Your task to perform on an android device: toggle location history Image 0: 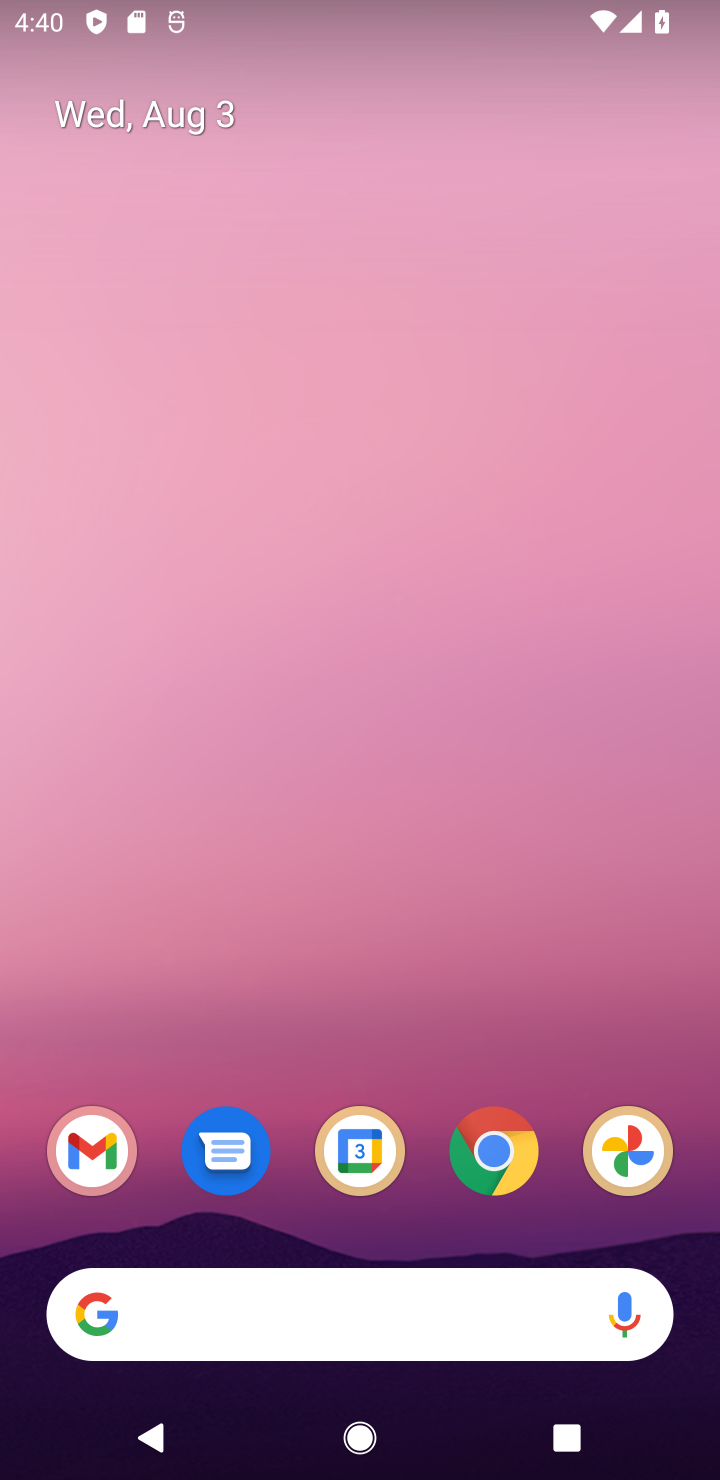
Step 0: drag from (440, 1078) to (444, 607)
Your task to perform on an android device: toggle location history Image 1: 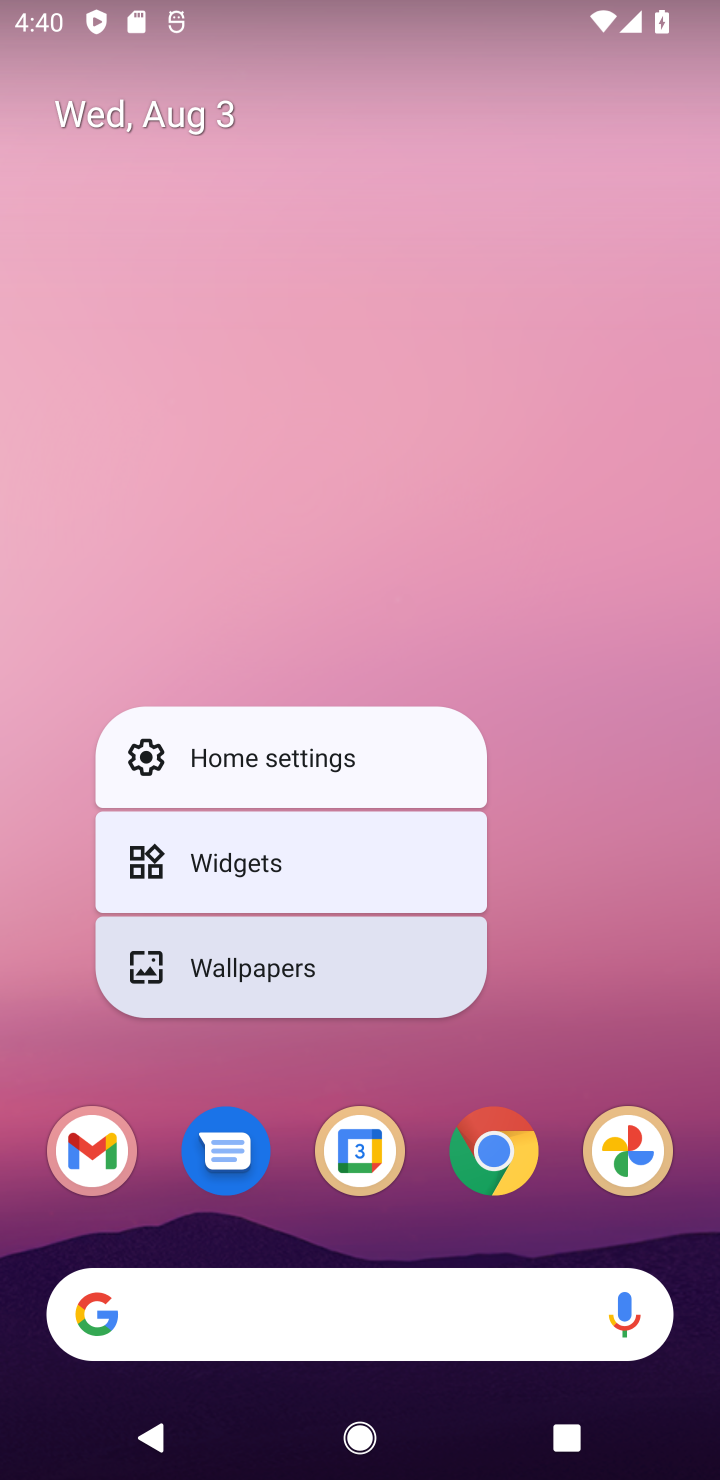
Step 1: click (444, 607)
Your task to perform on an android device: toggle location history Image 2: 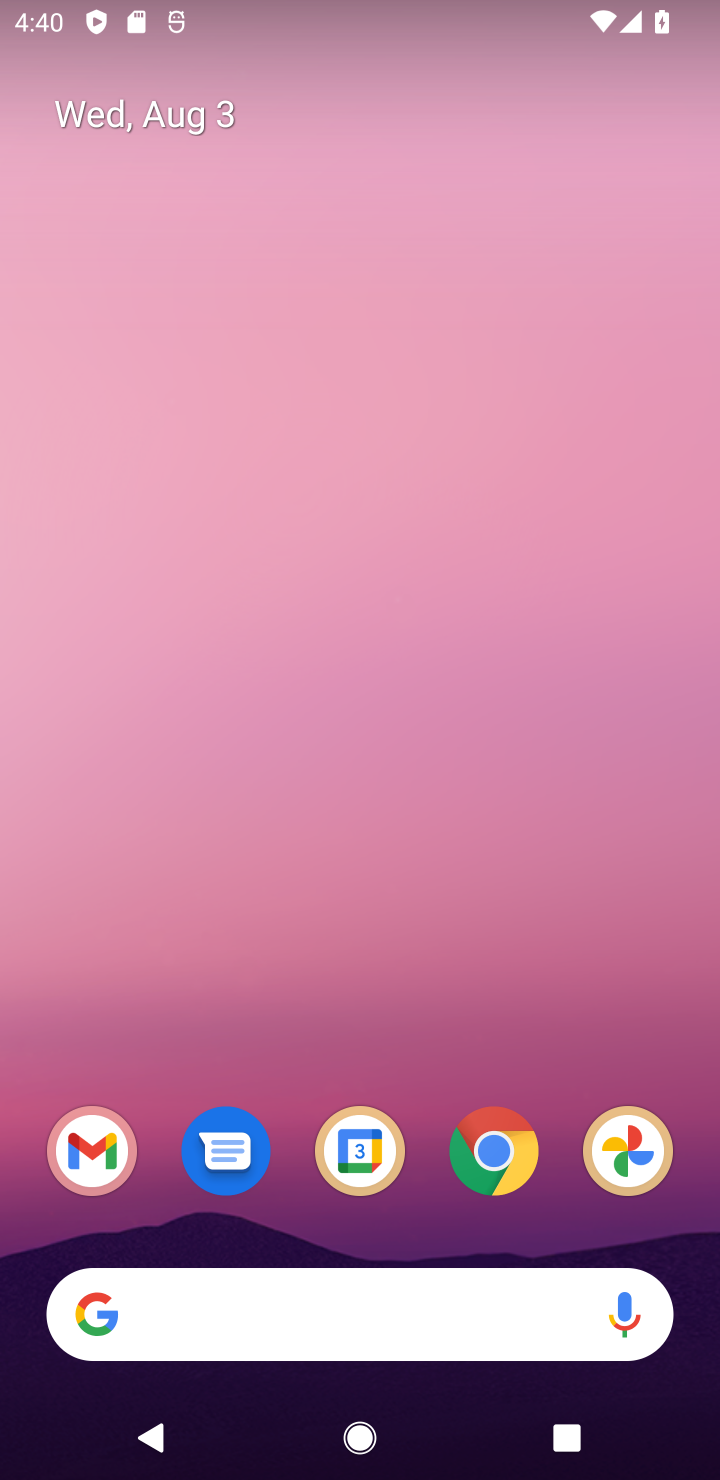
Step 2: drag from (434, 1105) to (380, 365)
Your task to perform on an android device: toggle location history Image 3: 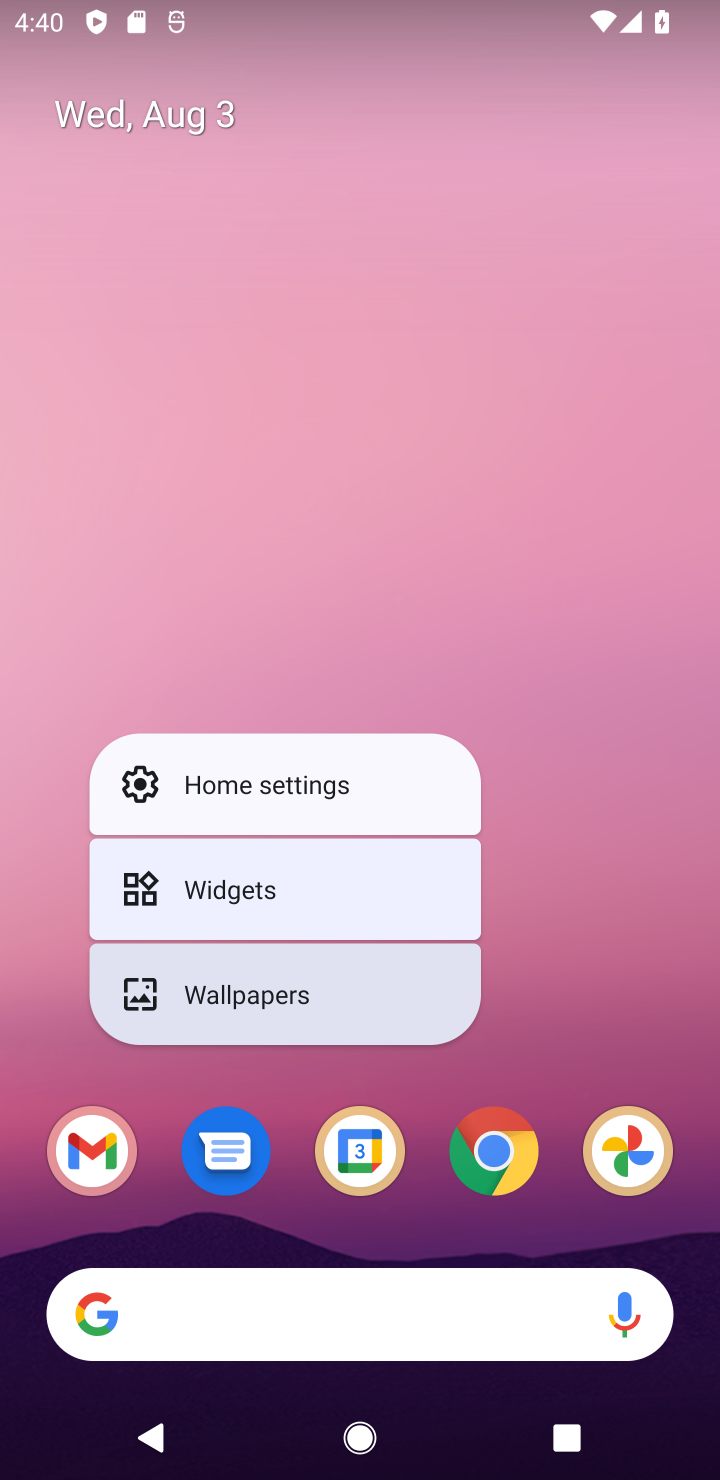
Step 3: click (520, 592)
Your task to perform on an android device: toggle location history Image 4: 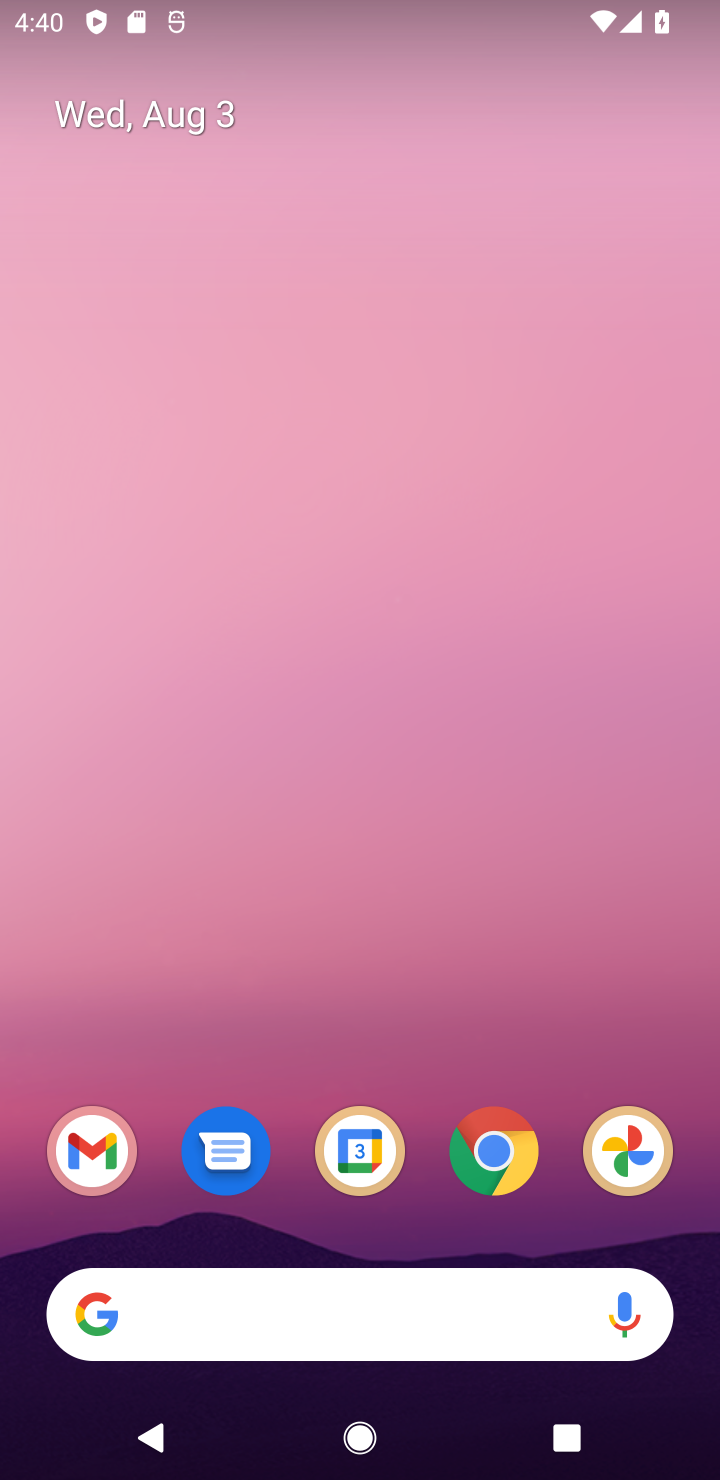
Step 4: drag from (429, 1052) to (349, 402)
Your task to perform on an android device: toggle location history Image 5: 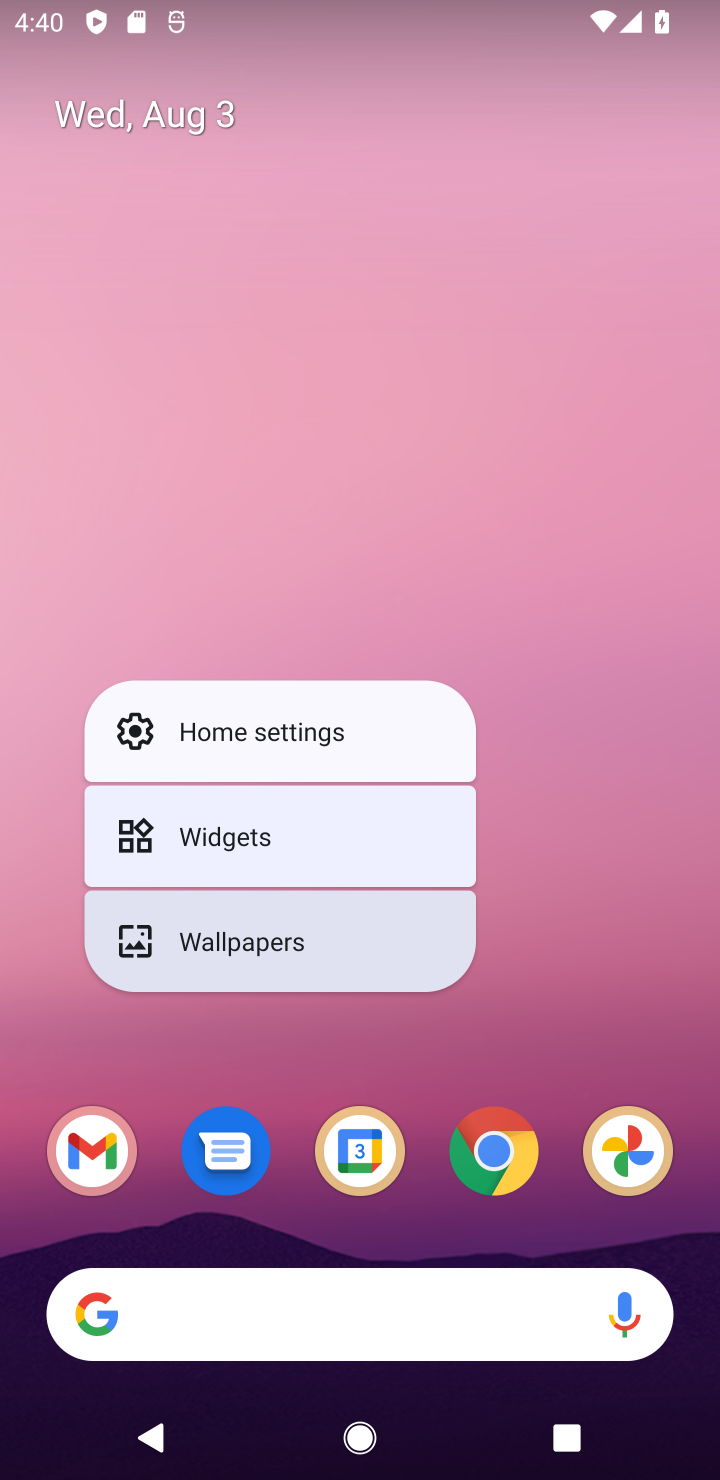
Step 5: click (694, 999)
Your task to perform on an android device: toggle location history Image 6: 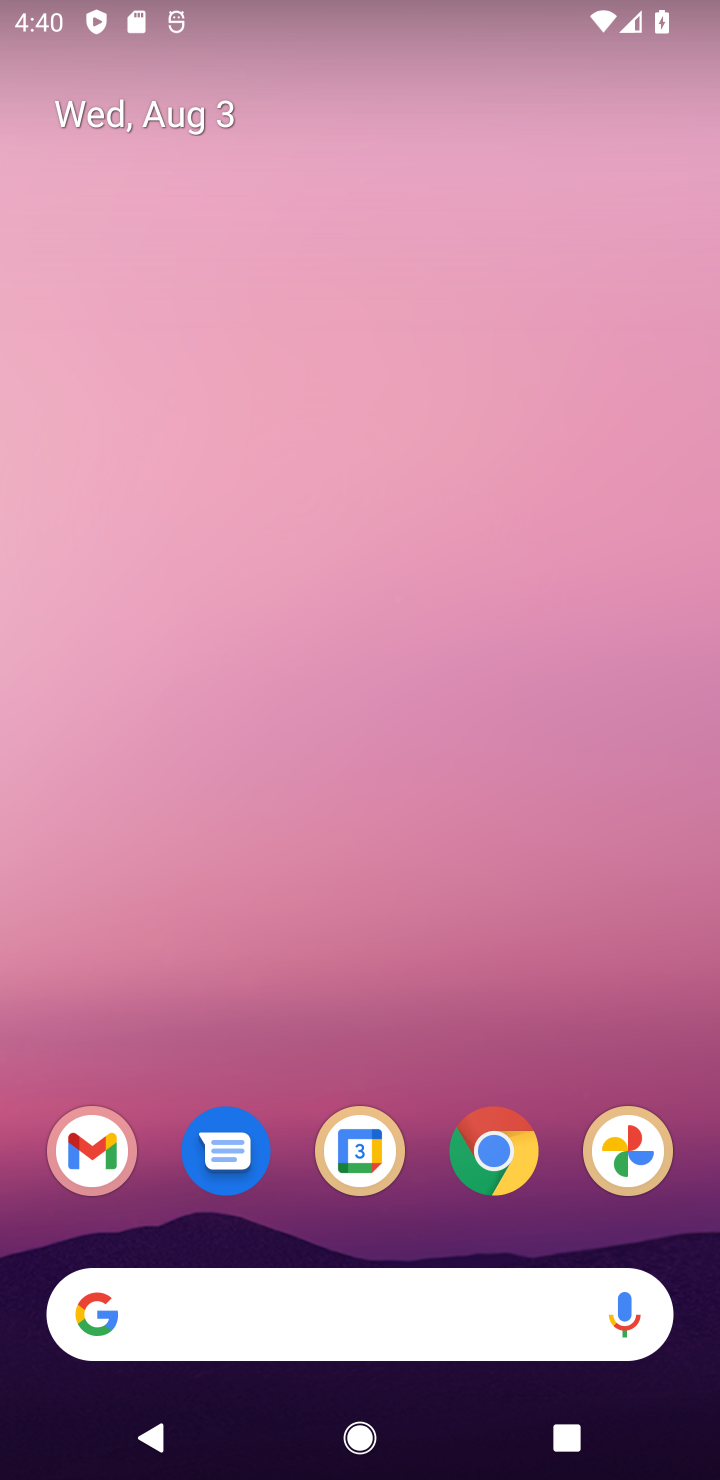
Step 6: drag from (368, 1050) to (307, 132)
Your task to perform on an android device: toggle location history Image 7: 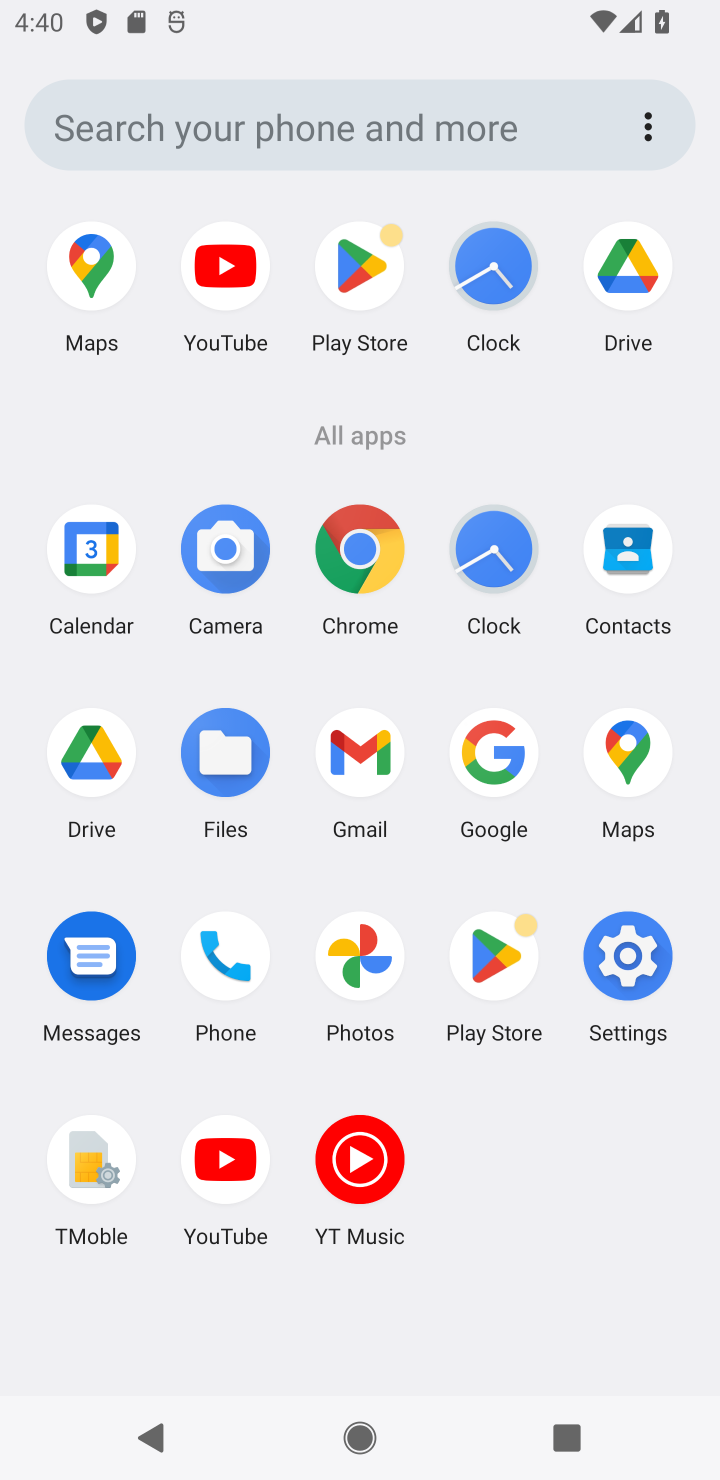
Step 7: click (634, 965)
Your task to perform on an android device: toggle location history Image 8: 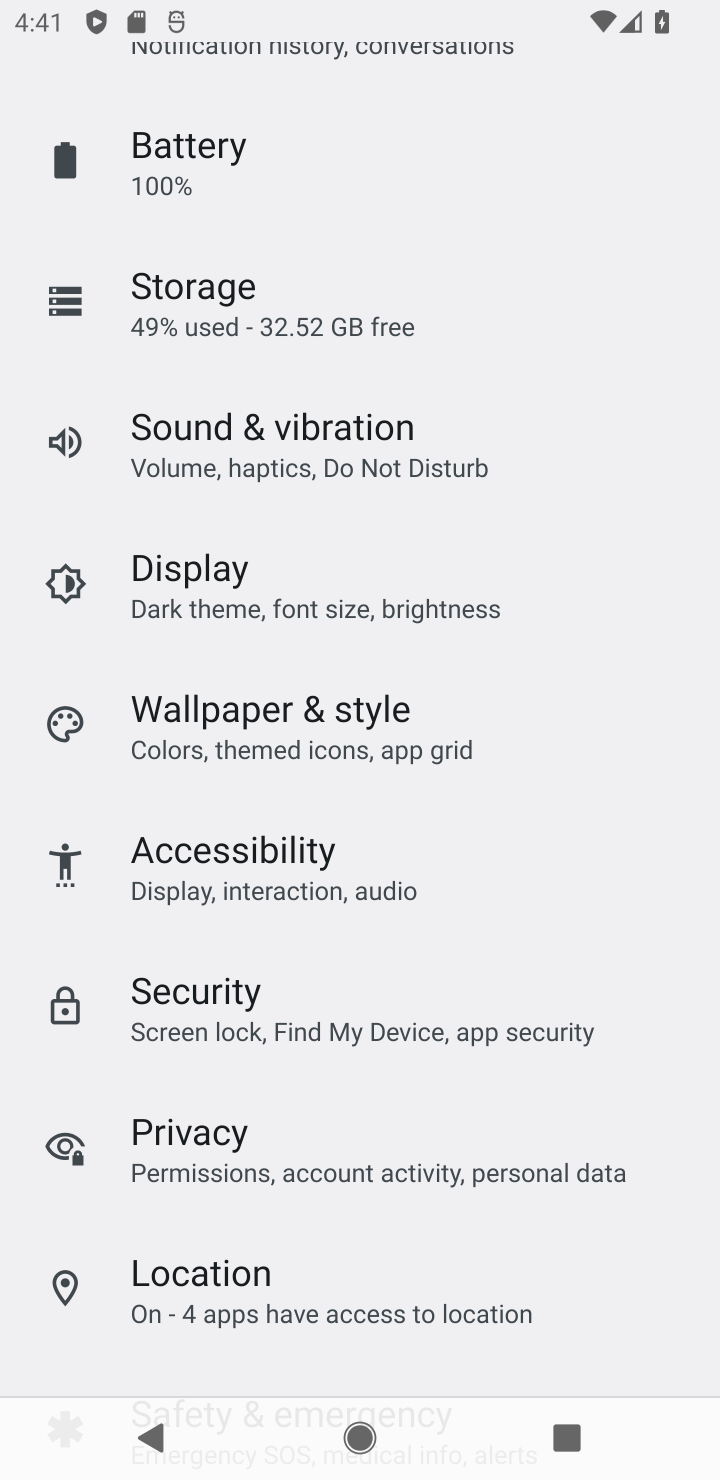
Step 8: click (307, 1295)
Your task to perform on an android device: toggle location history Image 9: 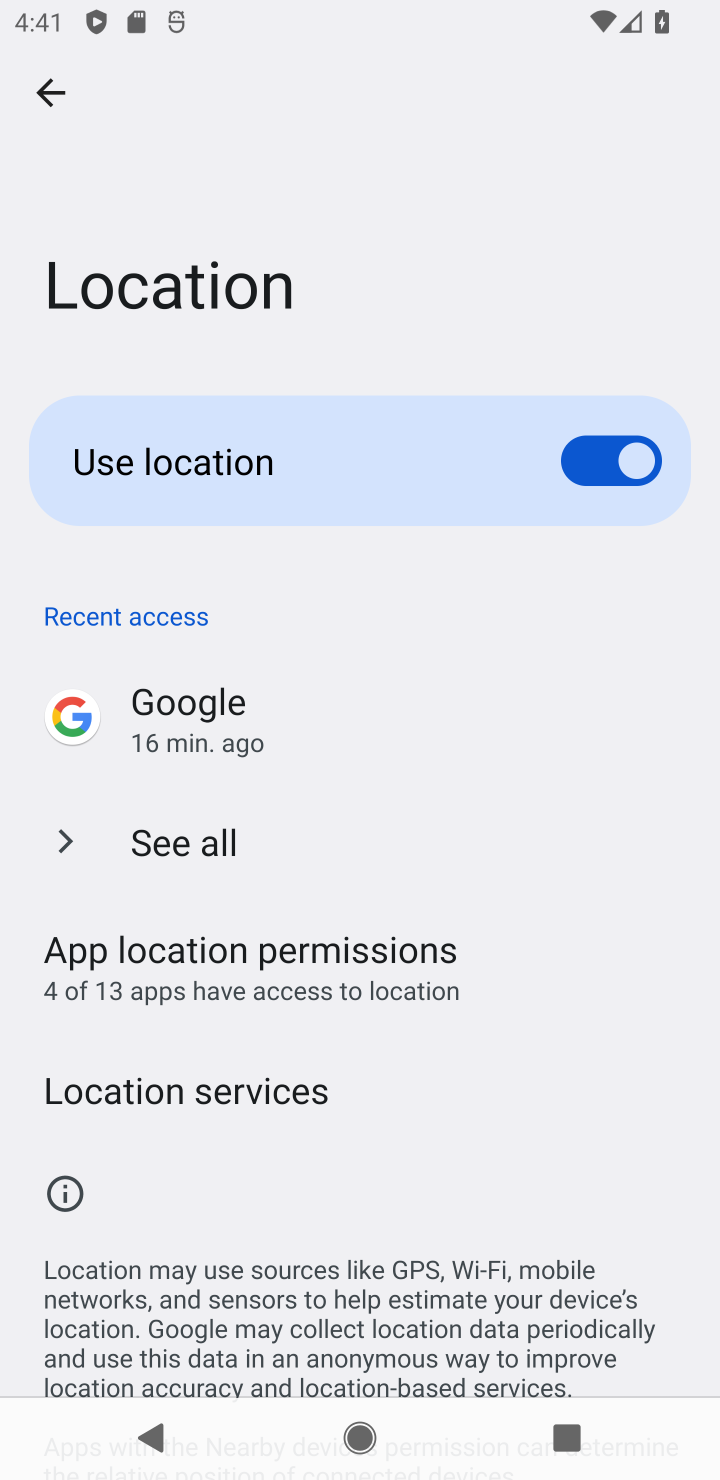
Step 9: click (305, 1084)
Your task to perform on an android device: toggle location history Image 10: 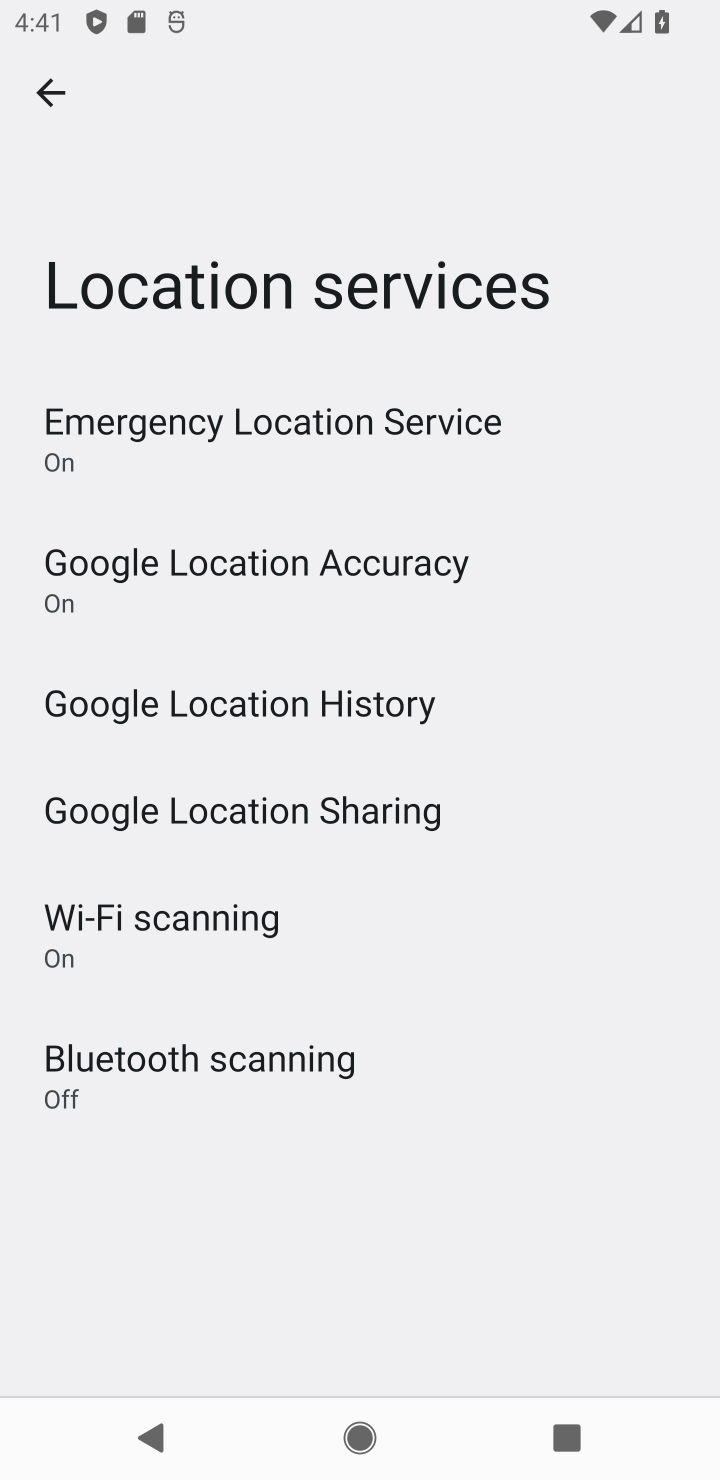
Step 10: click (408, 694)
Your task to perform on an android device: toggle location history Image 11: 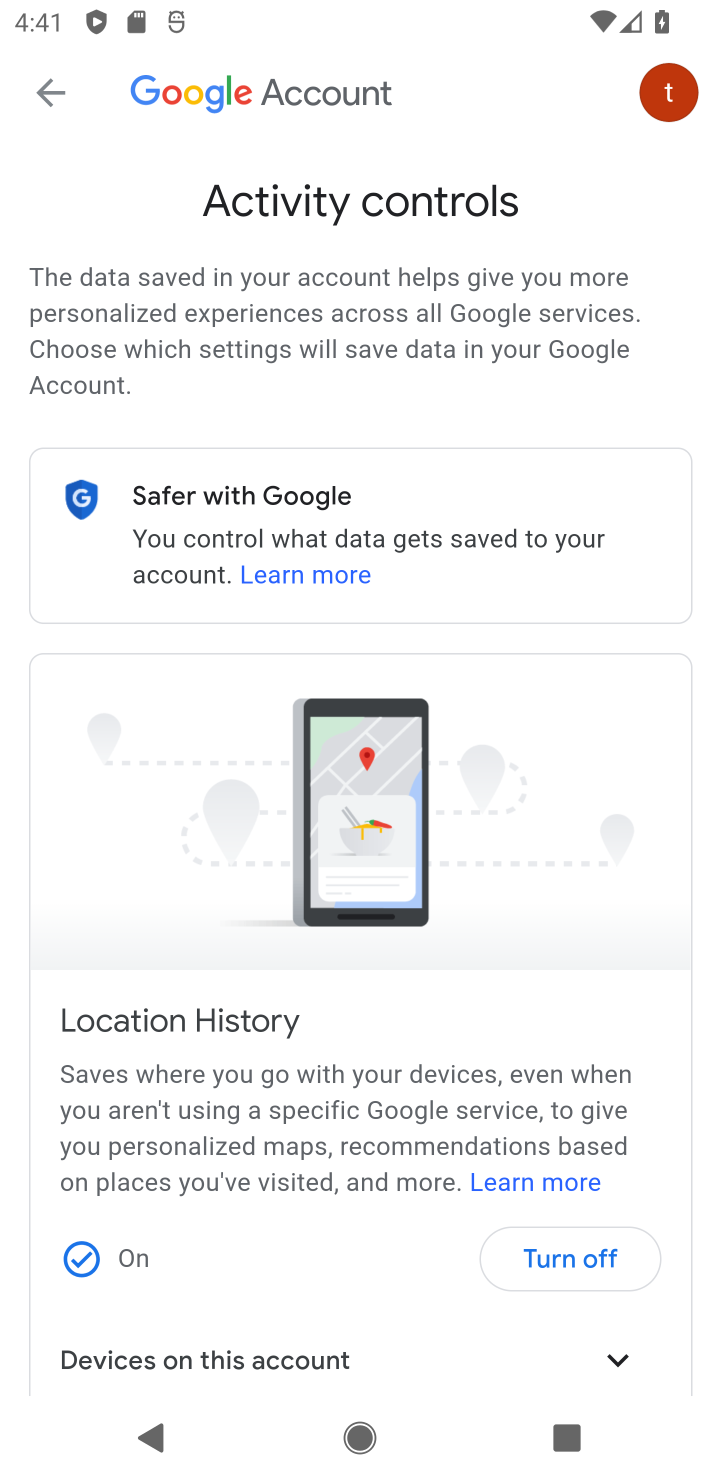
Step 11: click (592, 1245)
Your task to perform on an android device: toggle location history Image 12: 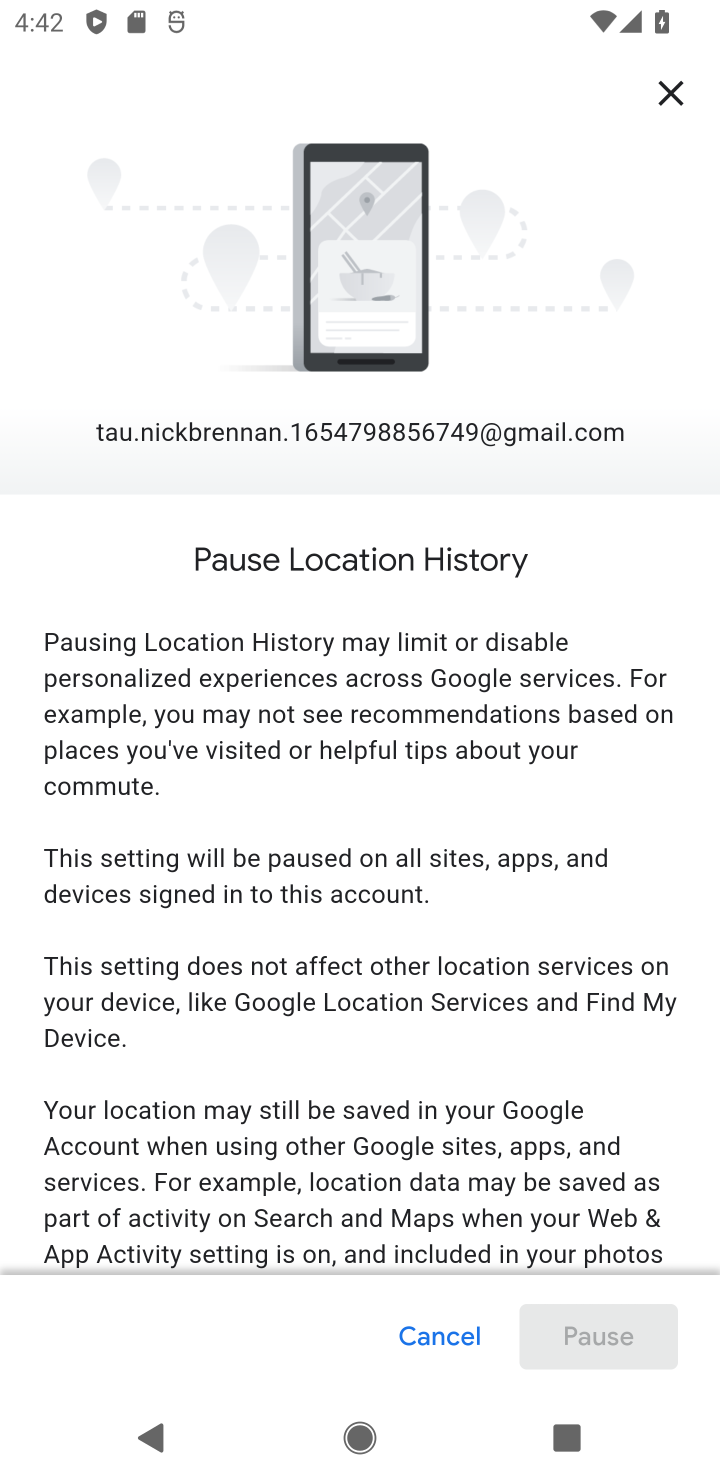
Step 12: drag from (630, 1212) to (545, 468)
Your task to perform on an android device: toggle location history Image 13: 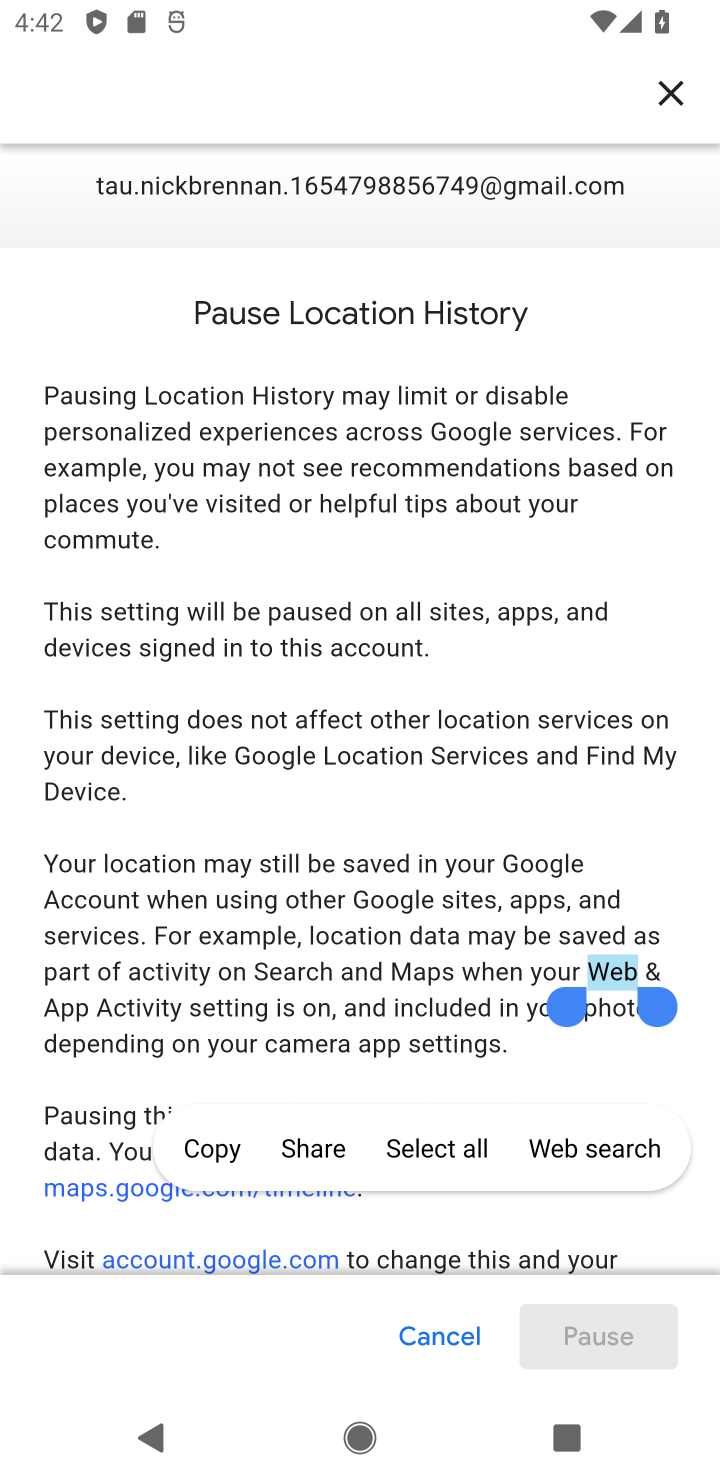
Step 13: click (429, 1023)
Your task to perform on an android device: toggle location history Image 14: 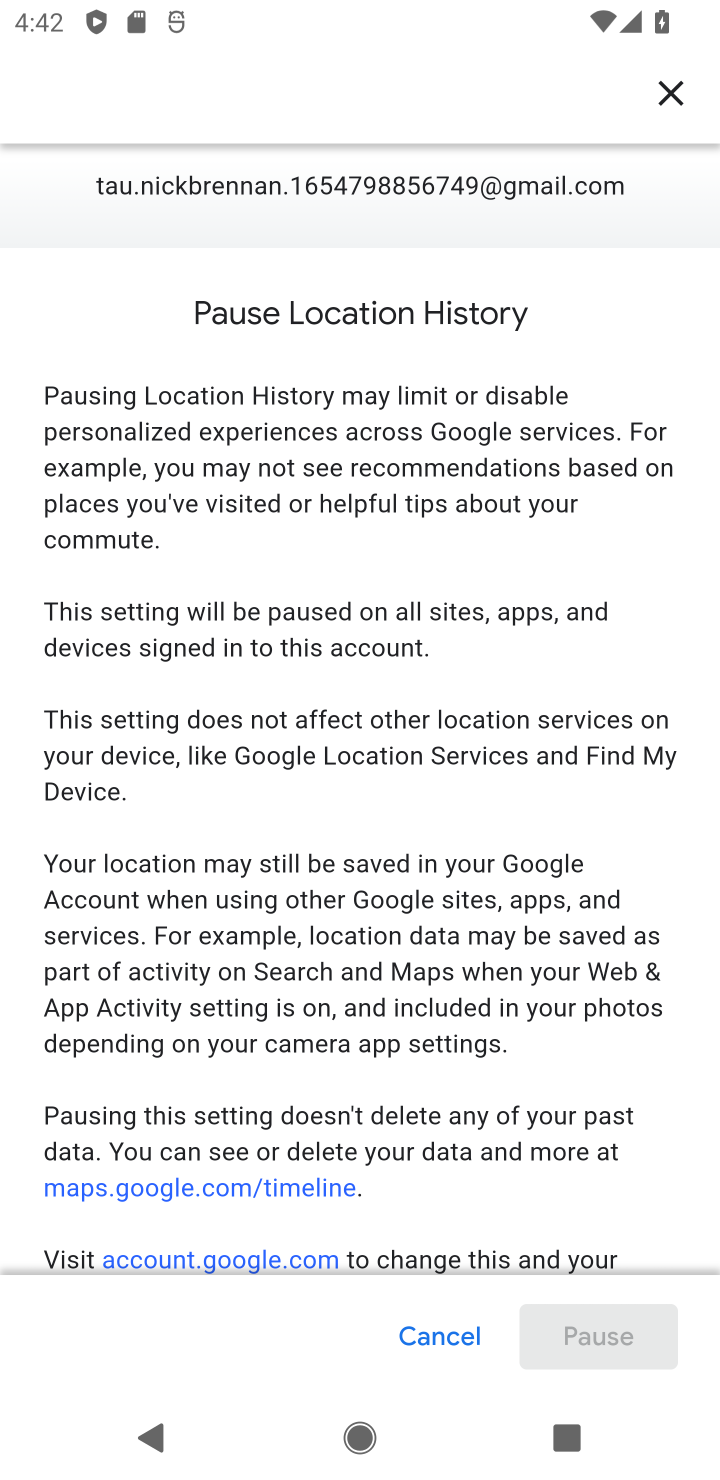
Step 14: drag from (554, 1113) to (545, 474)
Your task to perform on an android device: toggle location history Image 15: 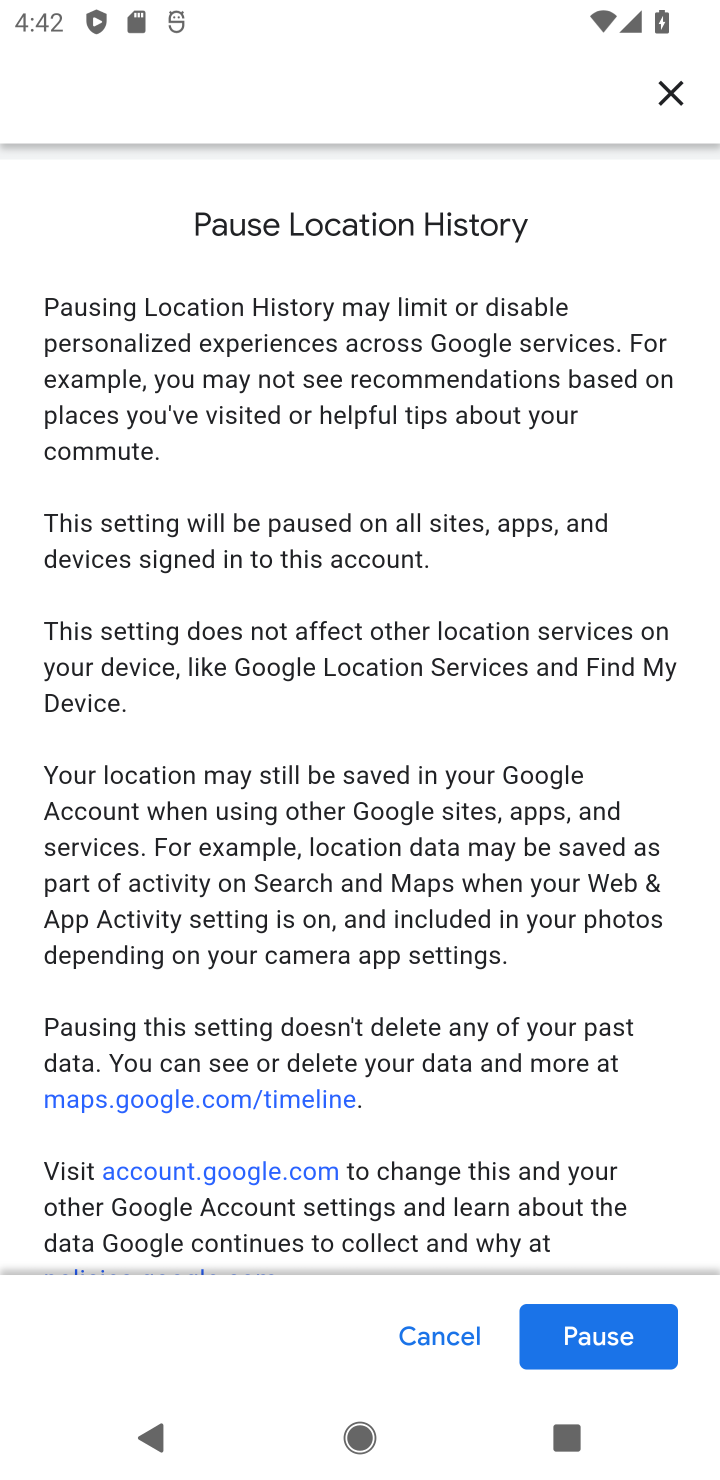
Step 15: click (606, 1349)
Your task to perform on an android device: toggle location history Image 16: 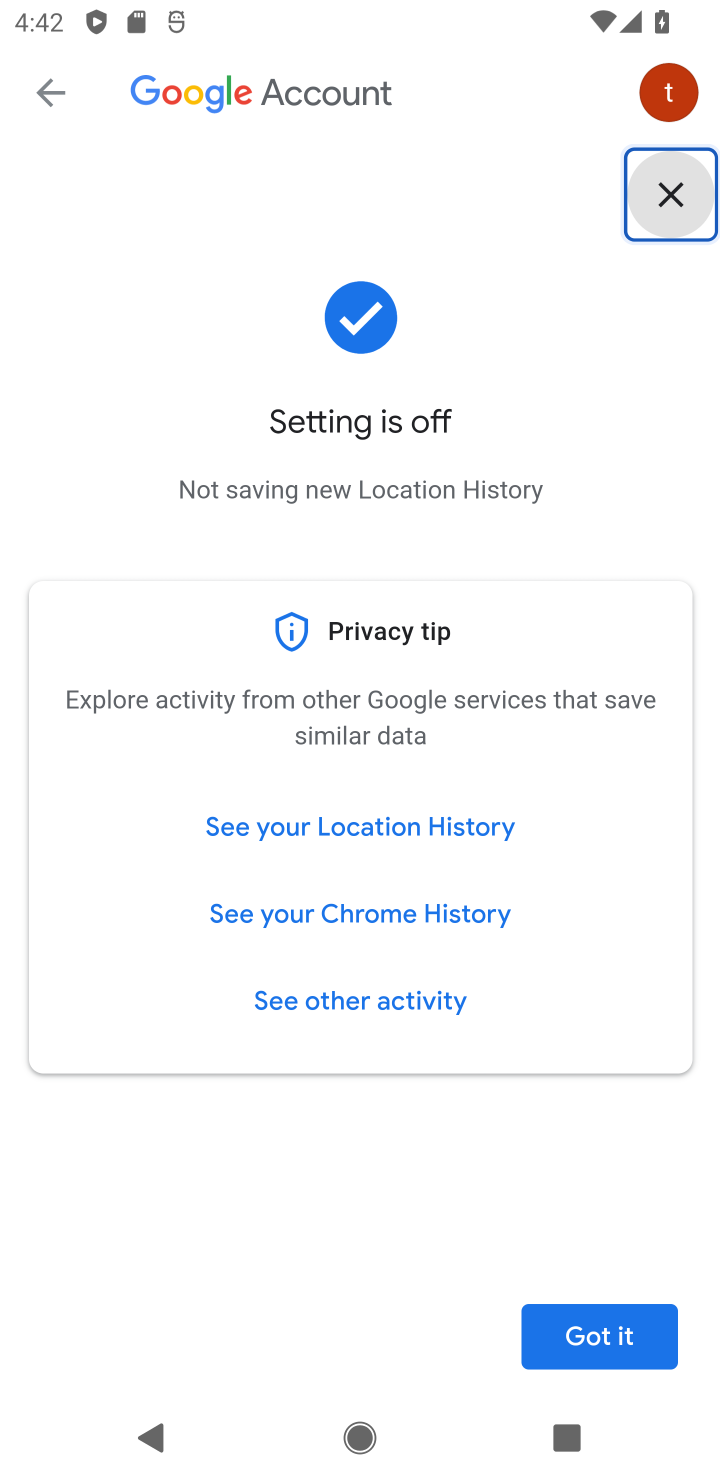
Step 16: click (658, 1346)
Your task to perform on an android device: toggle location history Image 17: 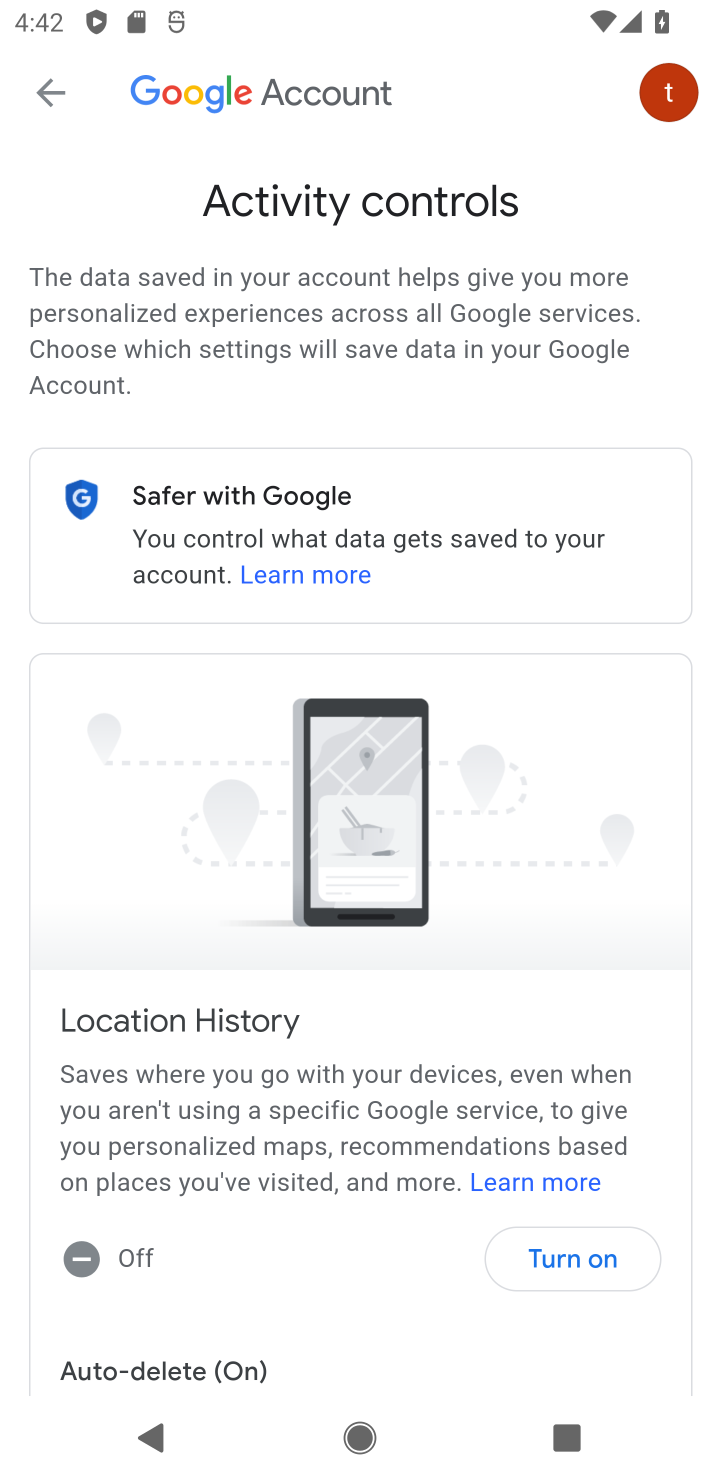
Step 17: task complete